Your task to perform on an android device: turn on location history Image 0: 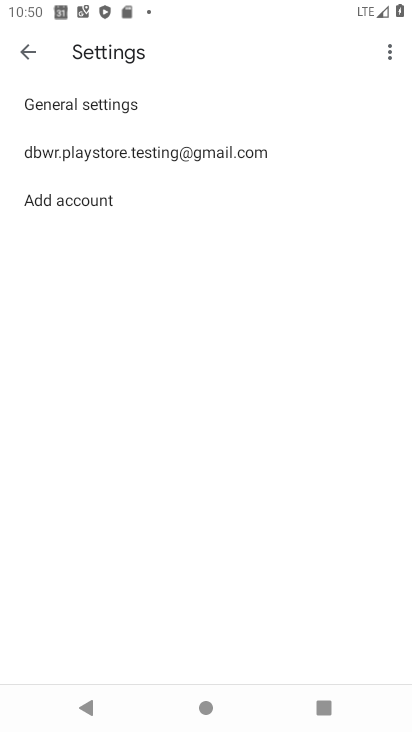
Step 0: press home button
Your task to perform on an android device: turn on location history Image 1: 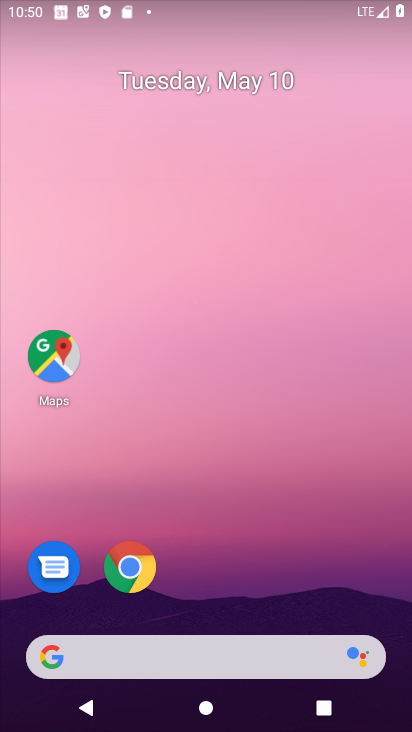
Step 1: drag from (61, 528) to (201, 157)
Your task to perform on an android device: turn on location history Image 2: 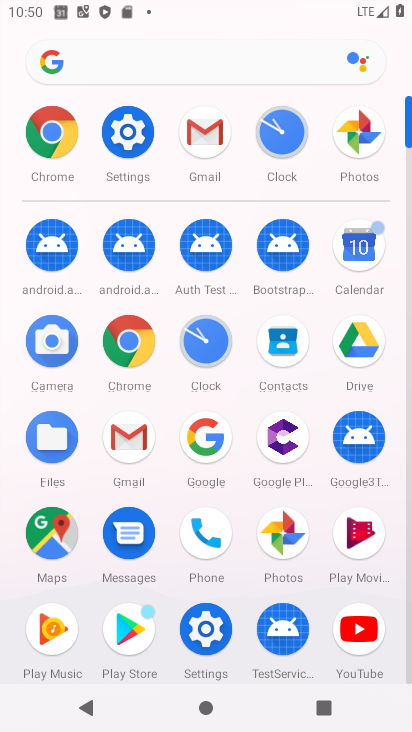
Step 2: click (116, 132)
Your task to perform on an android device: turn on location history Image 3: 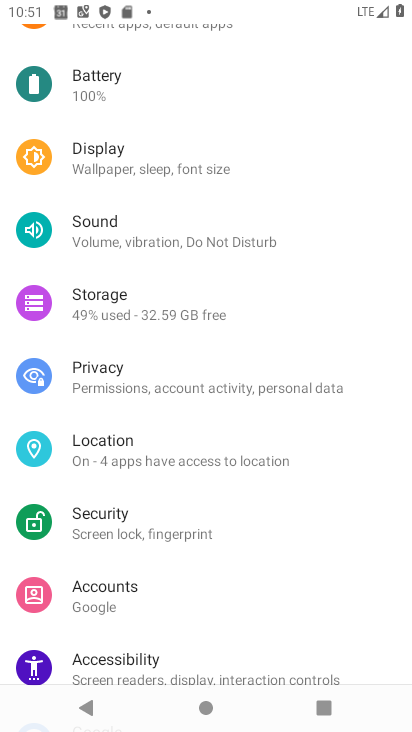
Step 3: click (131, 441)
Your task to perform on an android device: turn on location history Image 4: 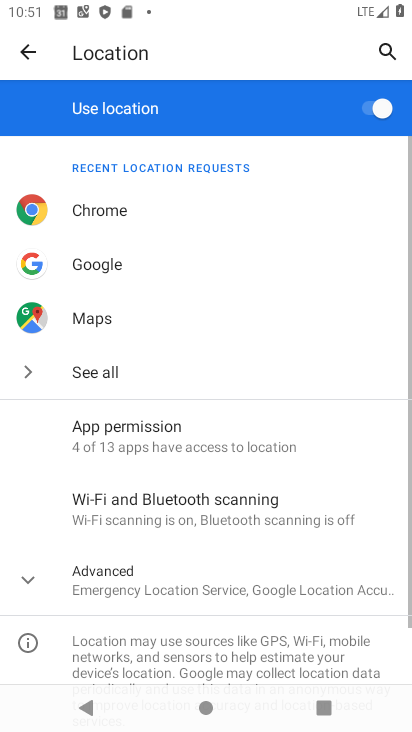
Step 4: click (200, 579)
Your task to perform on an android device: turn on location history Image 5: 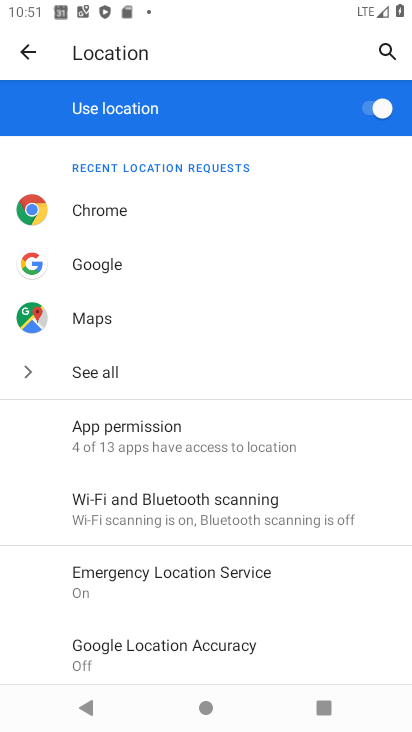
Step 5: drag from (172, 658) to (229, 231)
Your task to perform on an android device: turn on location history Image 6: 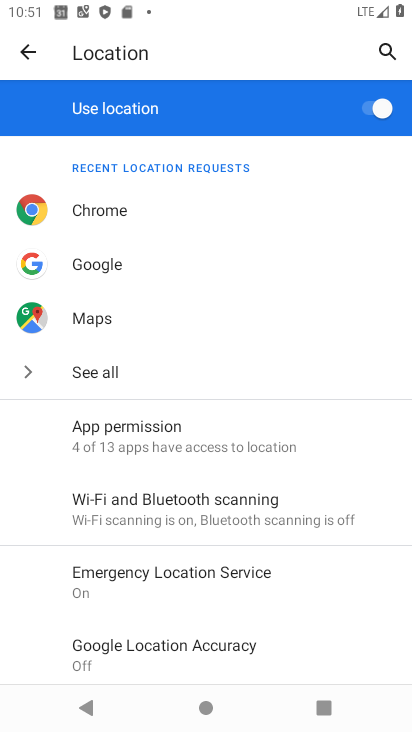
Step 6: click (10, 566)
Your task to perform on an android device: turn on location history Image 7: 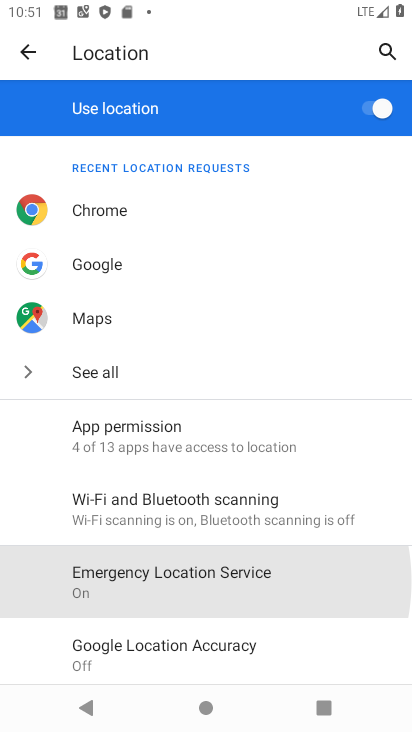
Step 7: drag from (11, 654) to (147, 242)
Your task to perform on an android device: turn on location history Image 8: 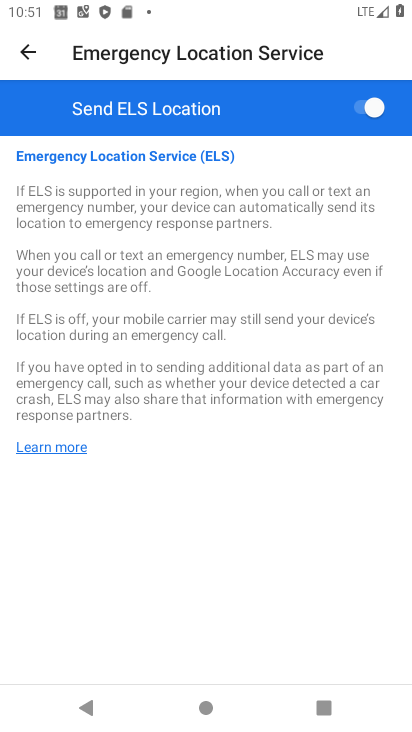
Step 8: press back button
Your task to perform on an android device: turn on location history Image 9: 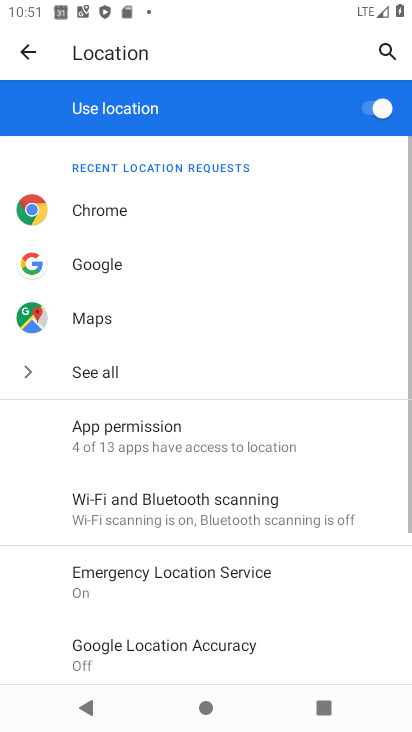
Step 9: drag from (113, 667) to (238, 209)
Your task to perform on an android device: turn on location history Image 10: 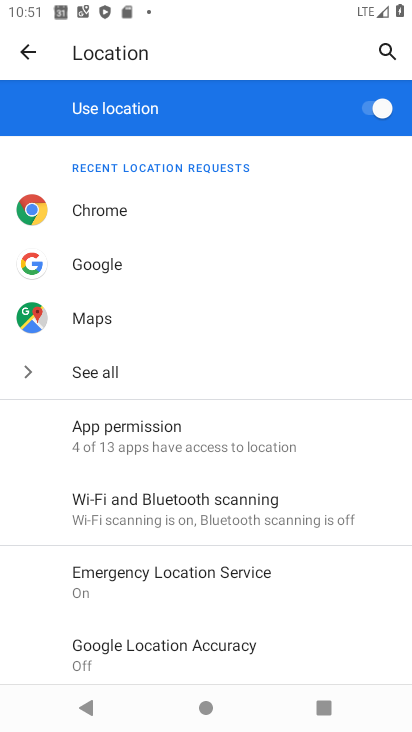
Step 10: drag from (21, 598) to (189, 199)
Your task to perform on an android device: turn on location history Image 11: 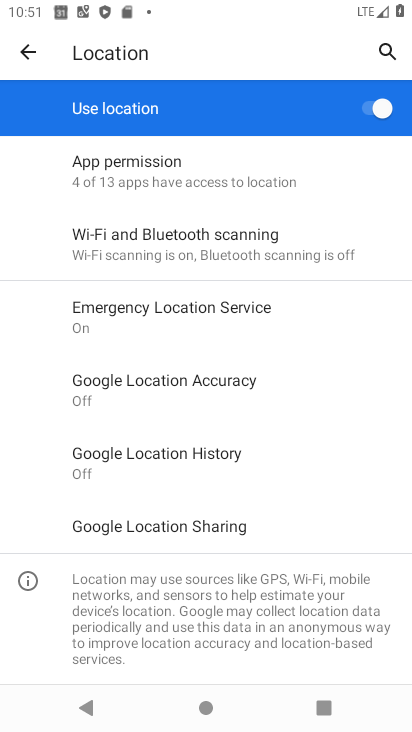
Step 11: click (148, 447)
Your task to perform on an android device: turn on location history Image 12: 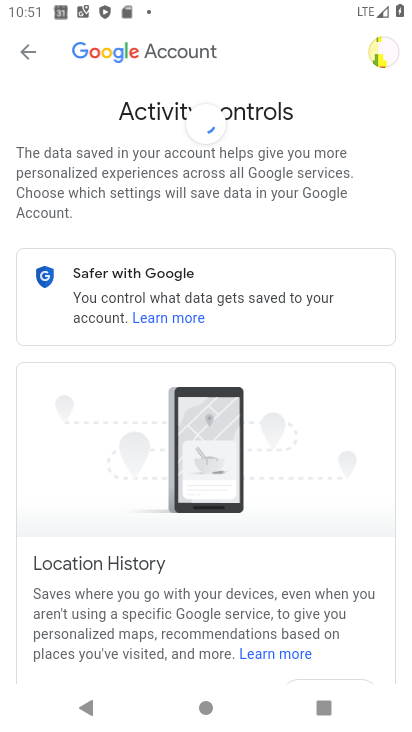
Step 12: drag from (213, 617) to (331, 252)
Your task to perform on an android device: turn on location history Image 13: 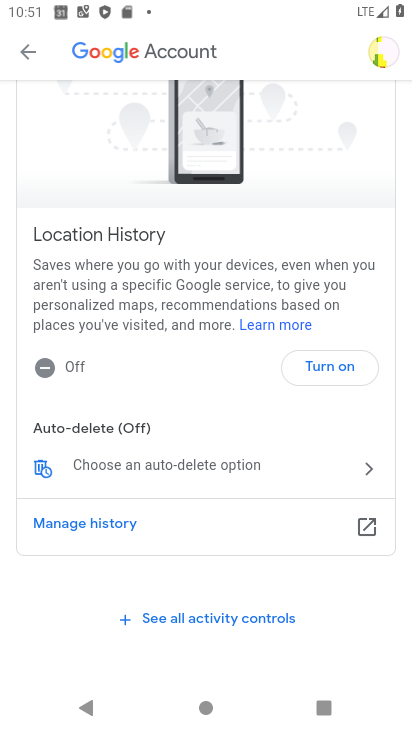
Step 13: click (337, 364)
Your task to perform on an android device: turn on location history Image 14: 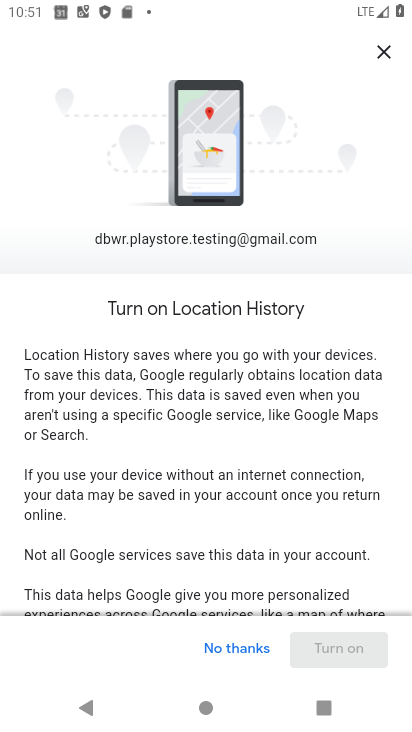
Step 14: drag from (142, 599) to (287, 195)
Your task to perform on an android device: turn on location history Image 15: 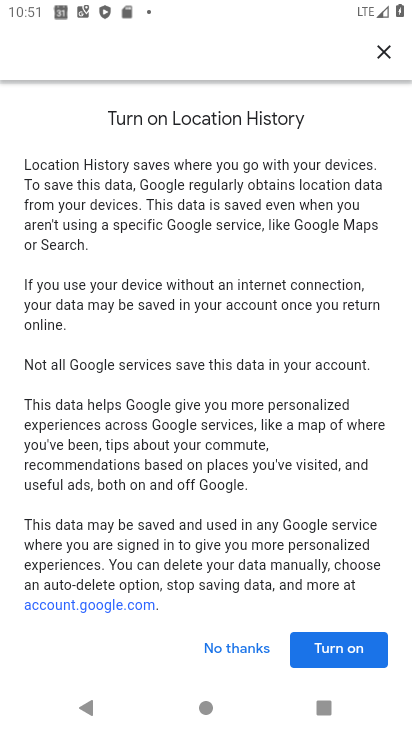
Step 15: click (332, 654)
Your task to perform on an android device: turn on location history Image 16: 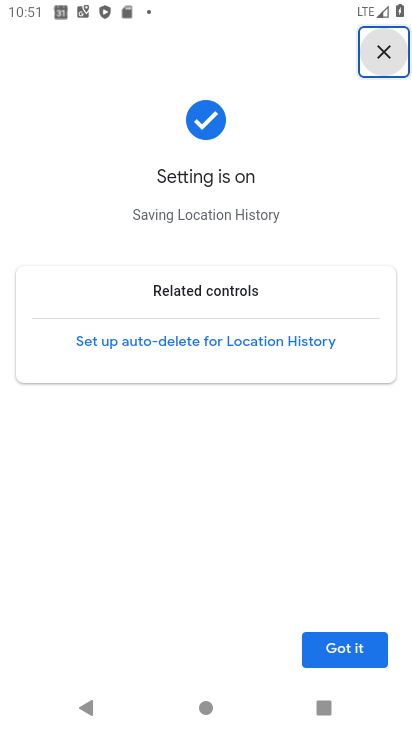
Step 16: task complete